Your task to perform on an android device: Open calendar and show me the second week of next month Image 0: 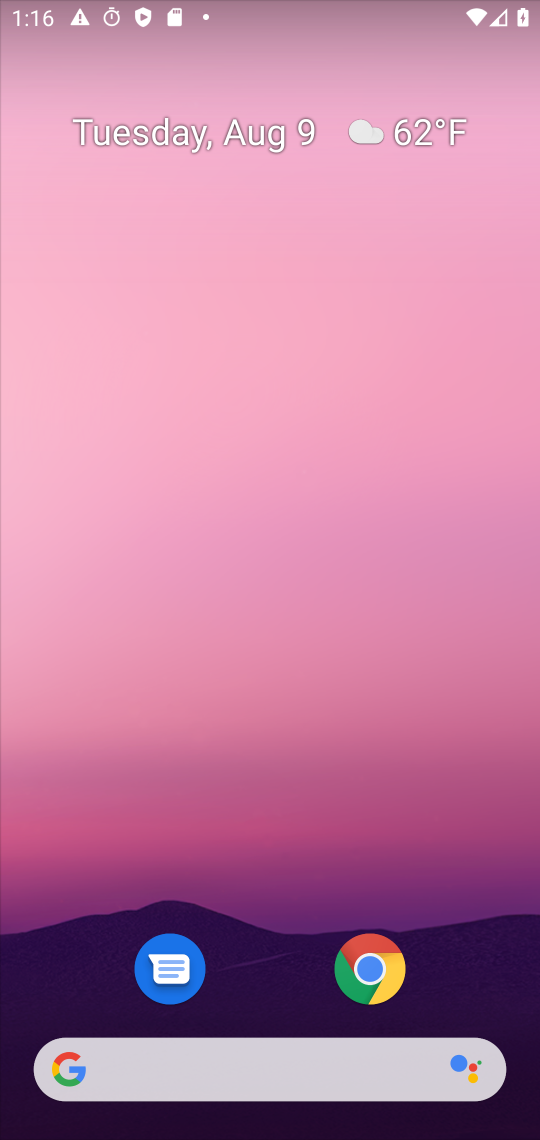
Step 0: press home button
Your task to perform on an android device: Open calendar and show me the second week of next month Image 1: 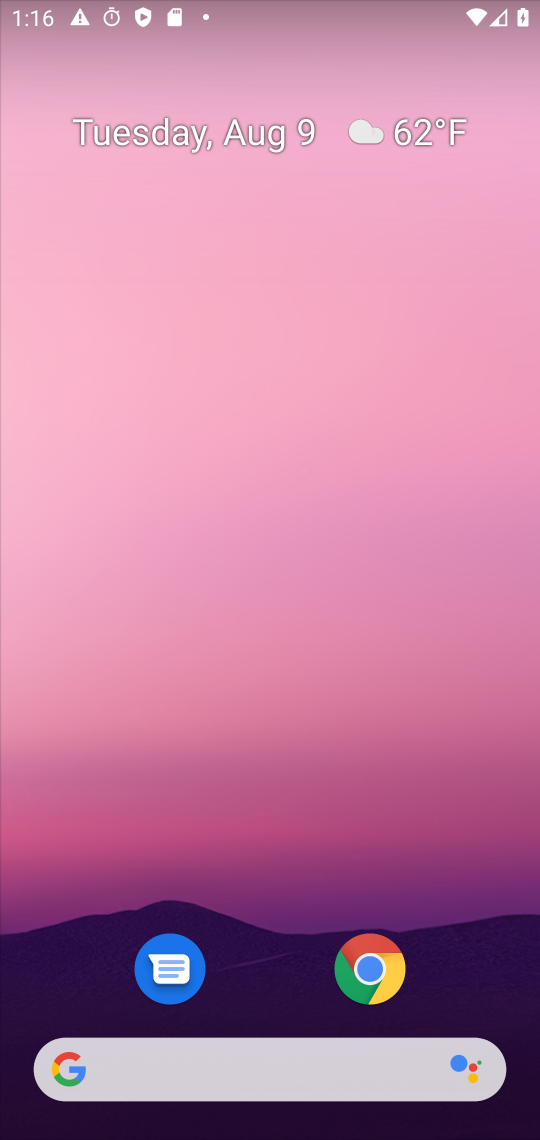
Step 1: drag from (364, 1109) to (386, 370)
Your task to perform on an android device: Open calendar and show me the second week of next month Image 2: 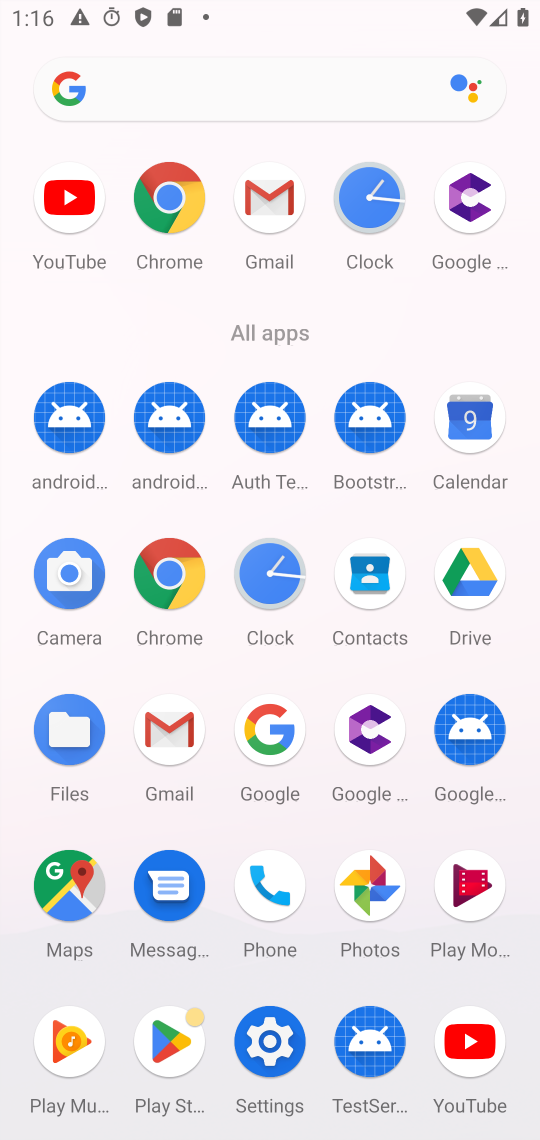
Step 2: click (472, 437)
Your task to perform on an android device: Open calendar and show me the second week of next month Image 3: 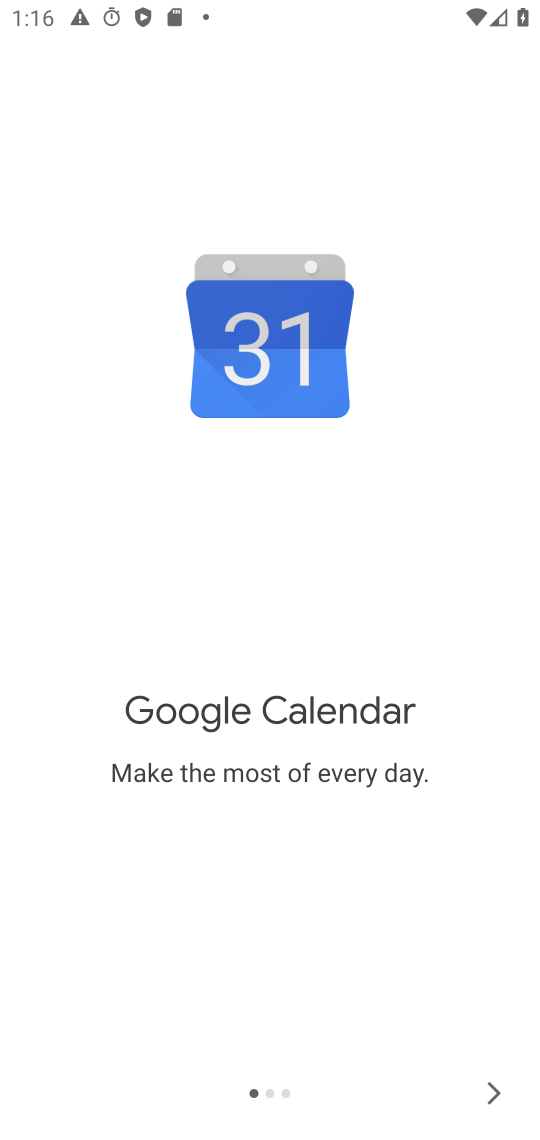
Step 3: click (488, 1089)
Your task to perform on an android device: Open calendar and show me the second week of next month Image 4: 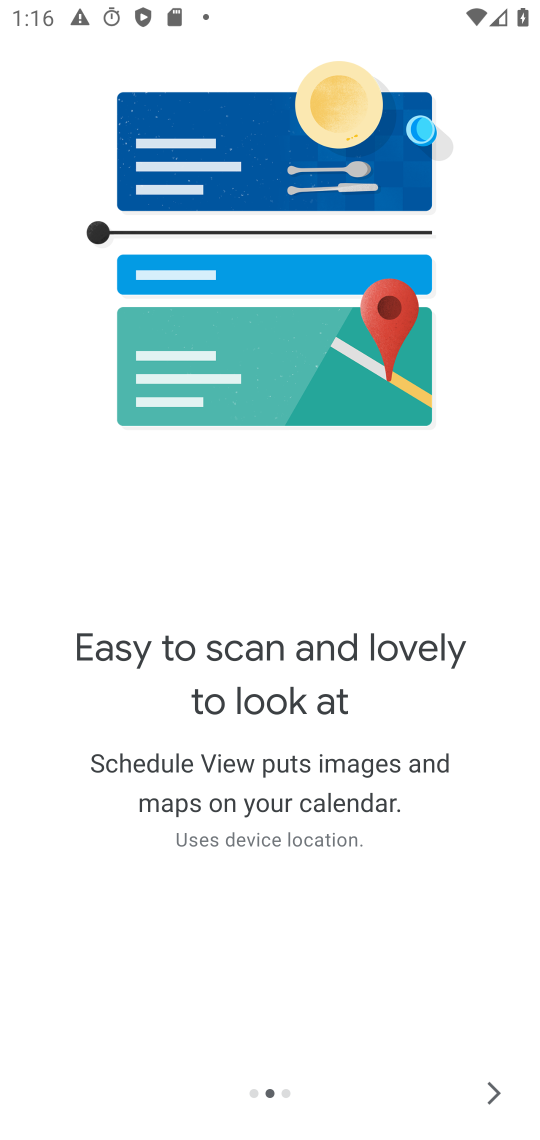
Step 4: click (486, 1085)
Your task to perform on an android device: Open calendar and show me the second week of next month Image 5: 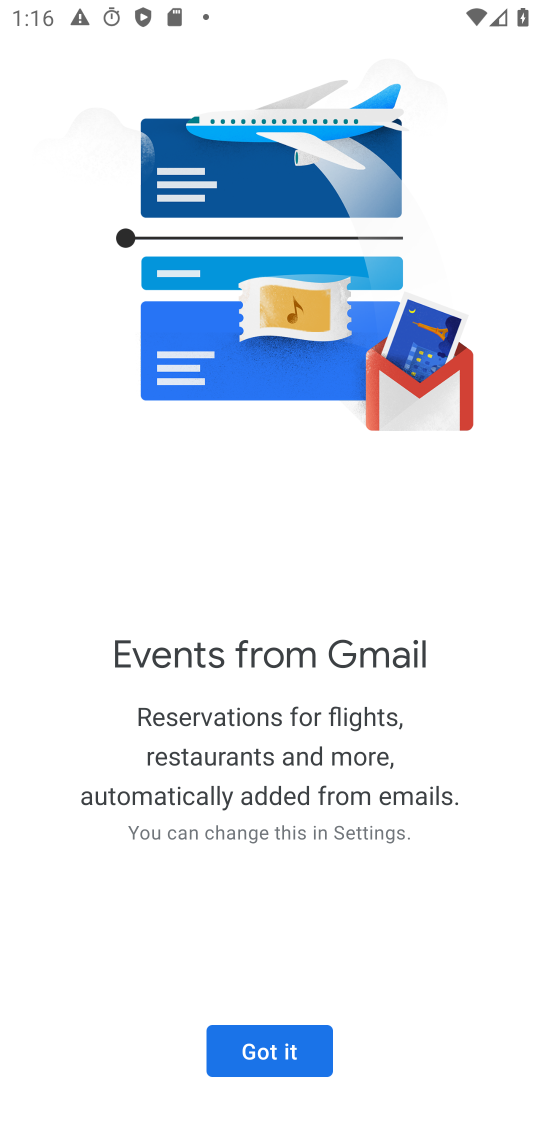
Step 5: click (285, 1065)
Your task to perform on an android device: Open calendar and show me the second week of next month Image 6: 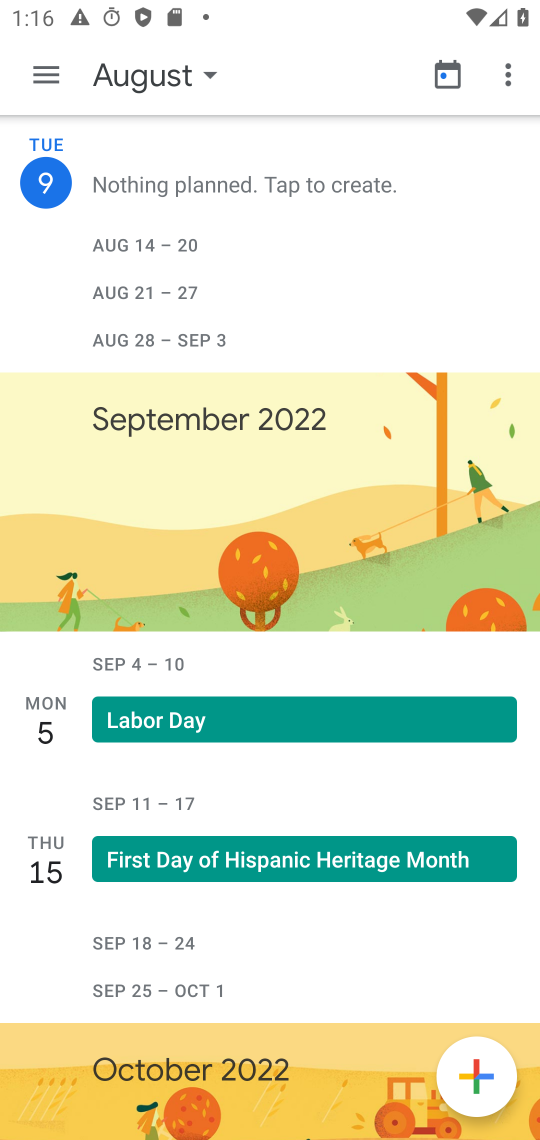
Step 6: click (20, 81)
Your task to perform on an android device: Open calendar and show me the second week of next month Image 7: 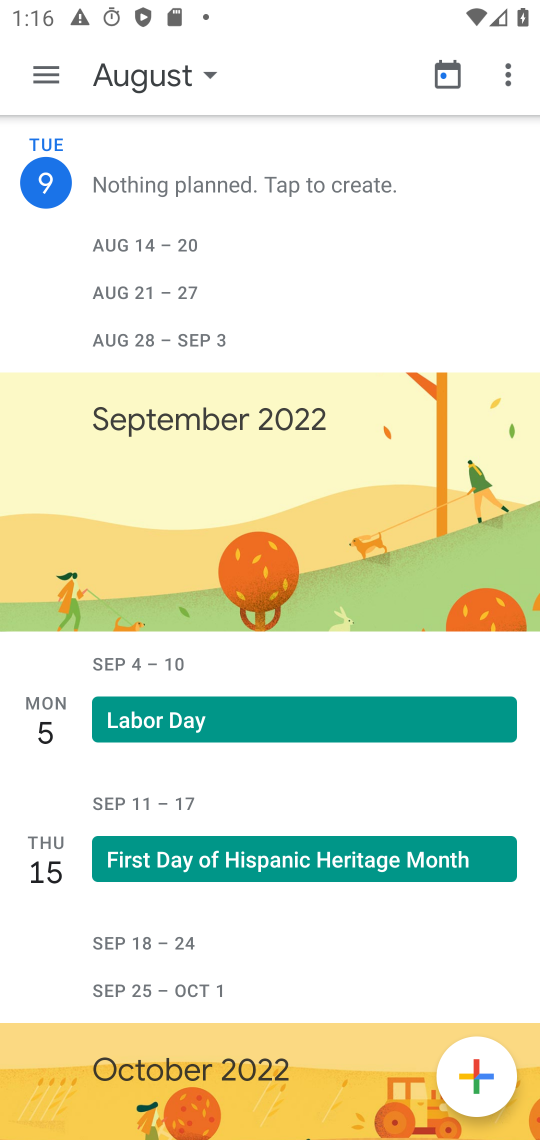
Step 7: click (48, 57)
Your task to perform on an android device: Open calendar and show me the second week of next month Image 8: 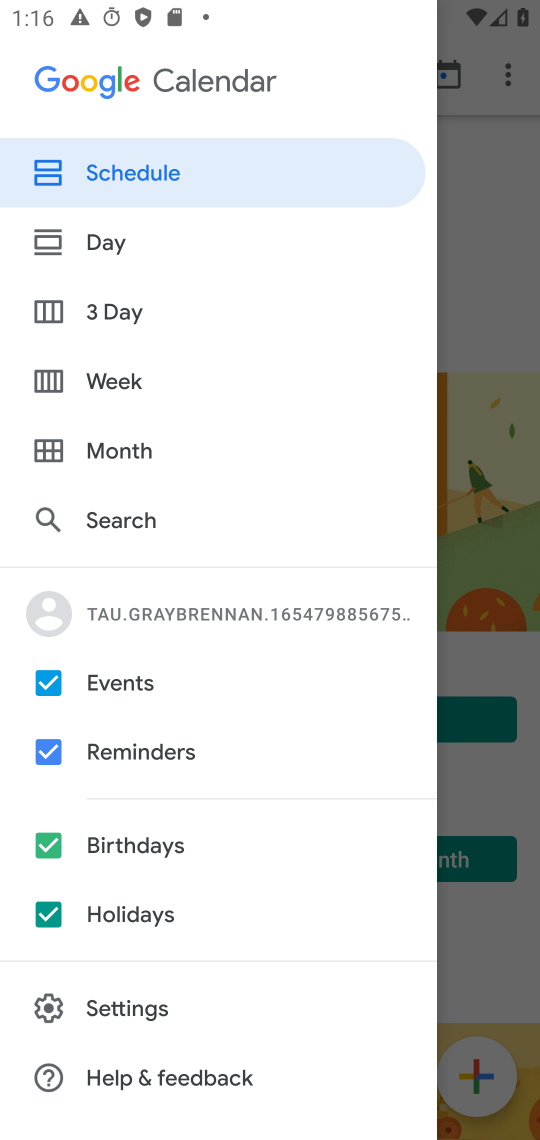
Step 8: click (130, 449)
Your task to perform on an android device: Open calendar and show me the second week of next month Image 9: 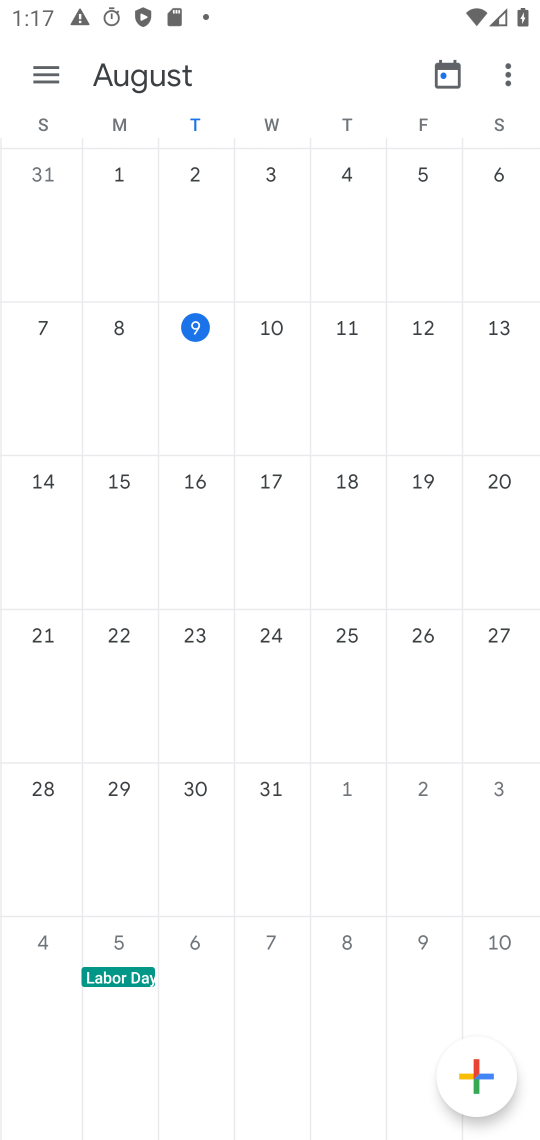
Step 9: drag from (519, 634) to (10, 776)
Your task to perform on an android device: Open calendar and show me the second week of next month Image 10: 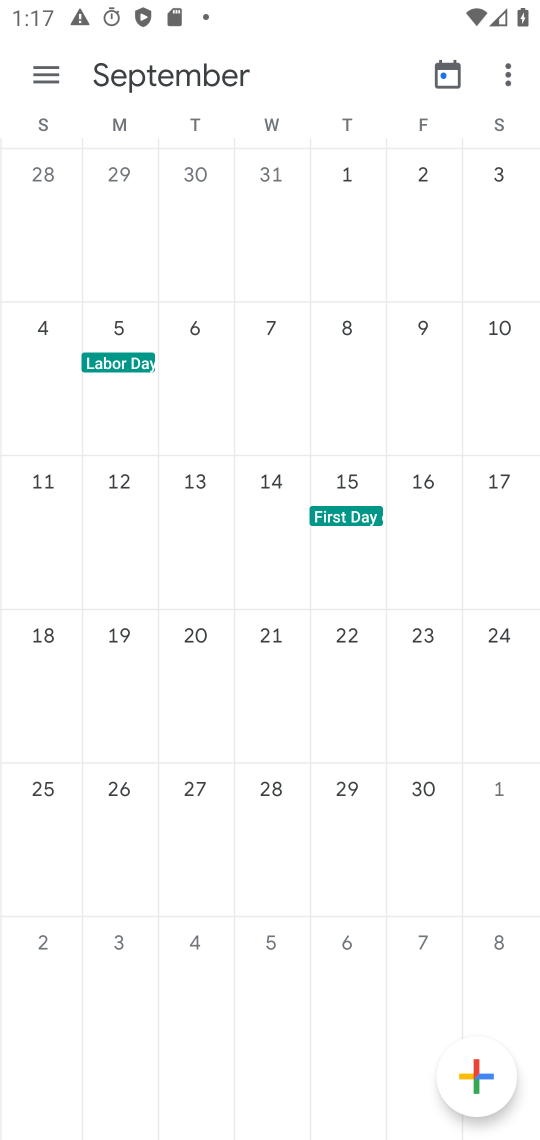
Step 10: click (124, 489)
Your task to perform on an android device: Open calendar and show me the second week of next month Image 11: 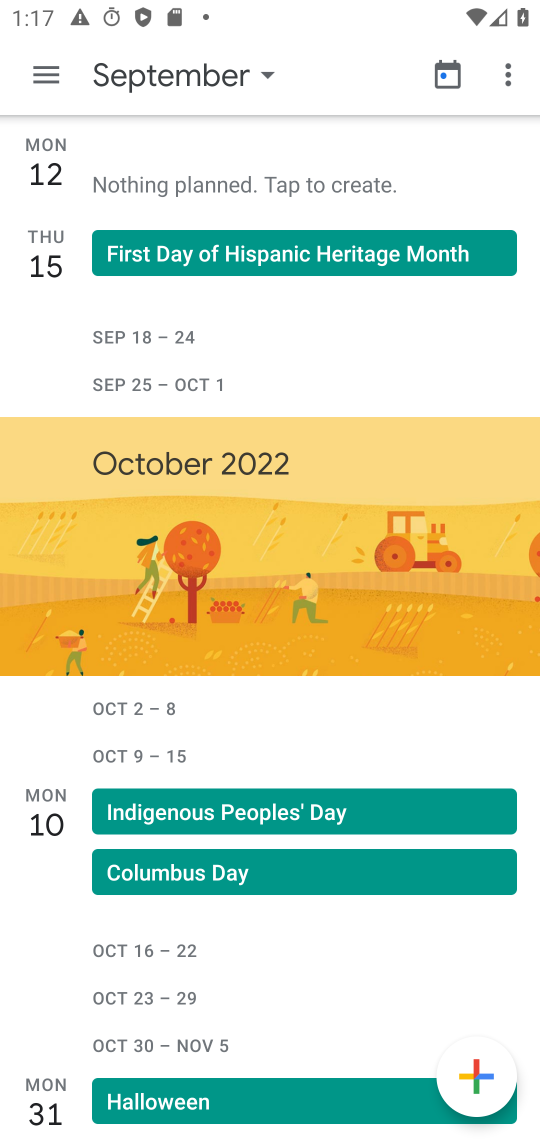
Step 11: task complete